Your task to perform on an android device: set an alarm Image 0: 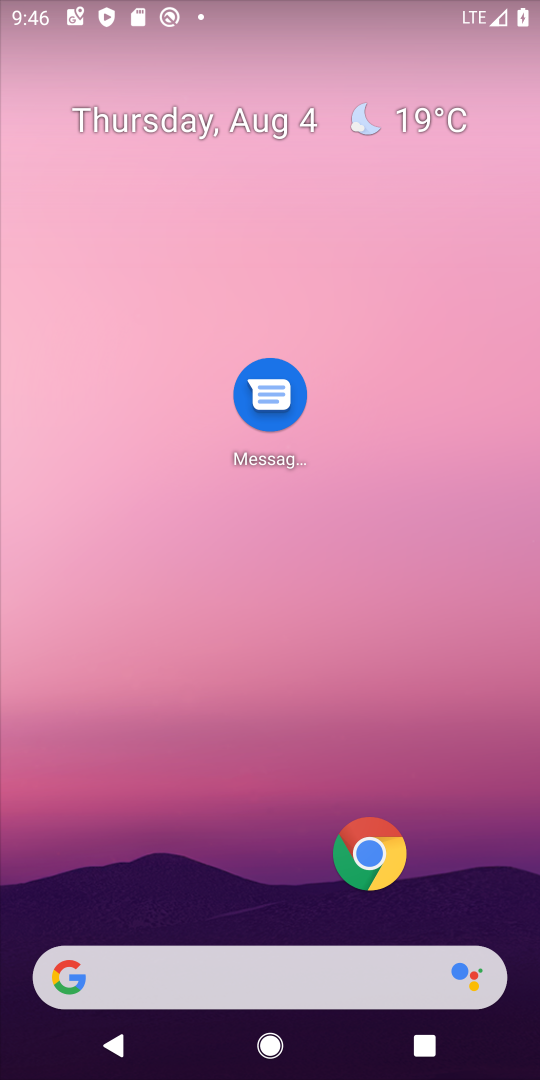
Step 0: drag from (225, 938) to (225, 362)
Your task to perform on an android device: set an alarm Image 1: 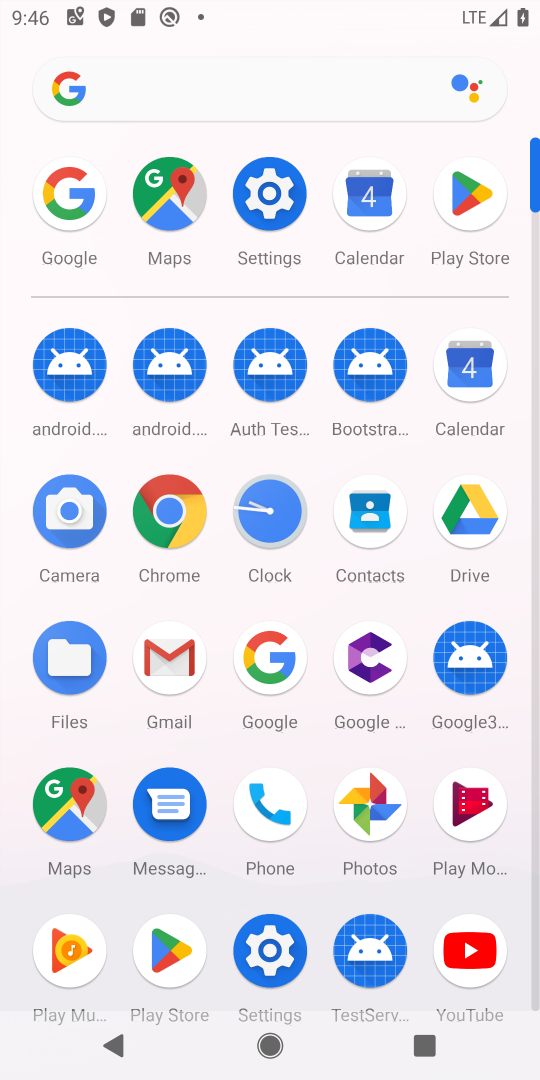
Step 1: click (261, 521)
Your task to perform on an android device: set an alarm Image 2: 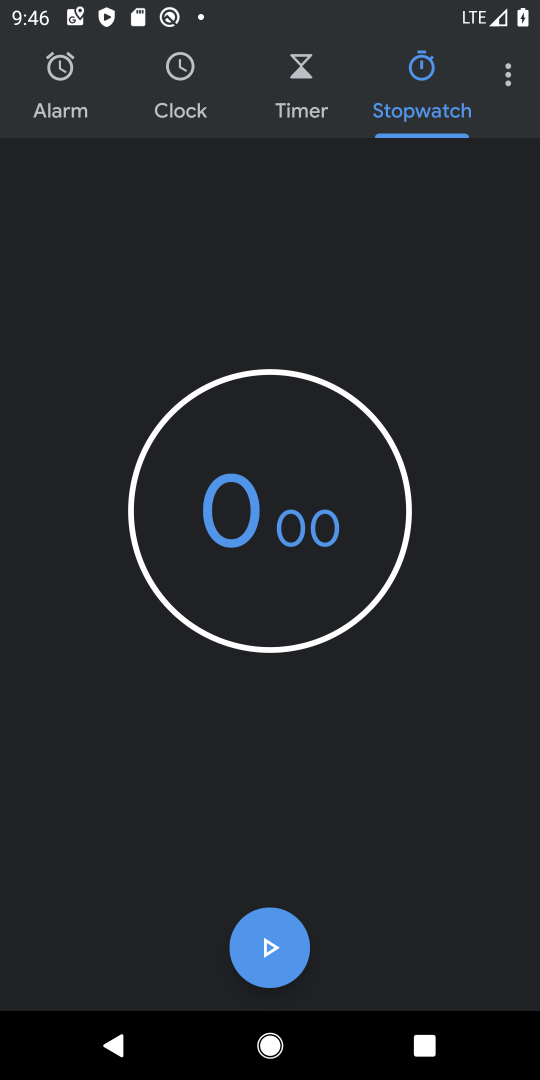
Step 2: click (114, 101)
Your task to perform on an android device: set an alarm Image 3: 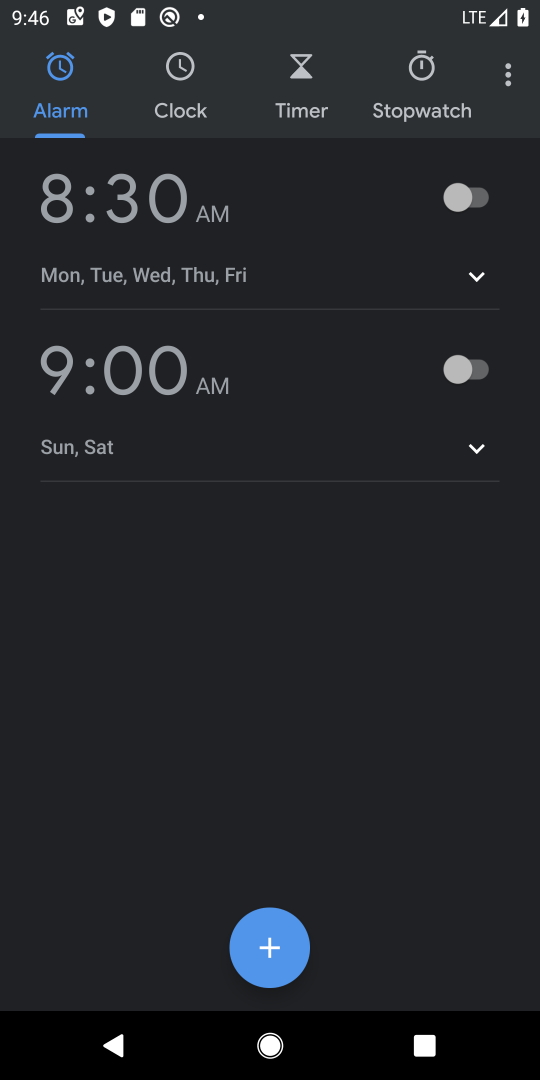
Step 3: click (282, 957)
Your task to perform on an android device: set an alarm Image 4: 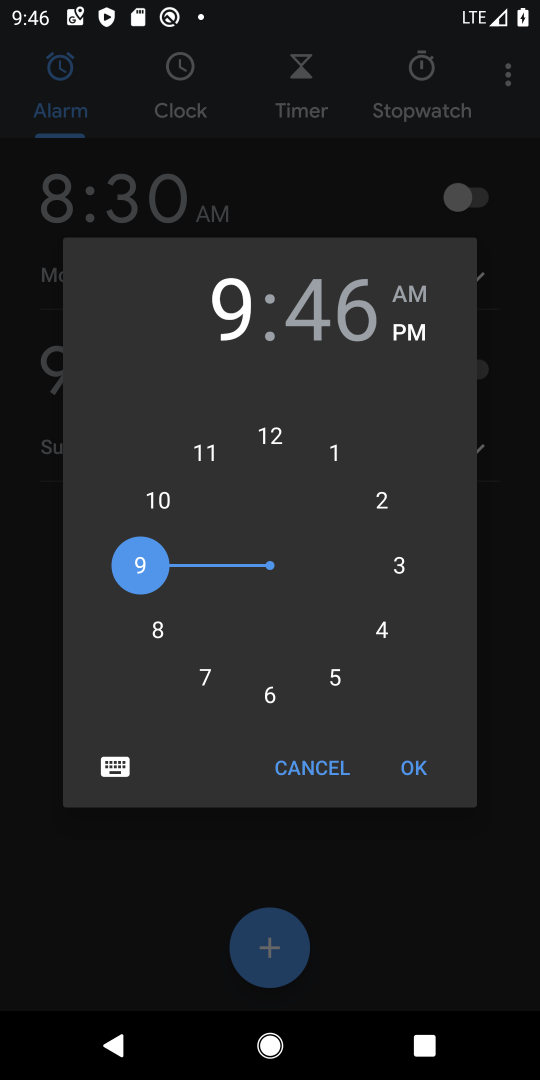
Step 4: click (202, 447)
Your task to perform on an android device: set an alarm Image 5: 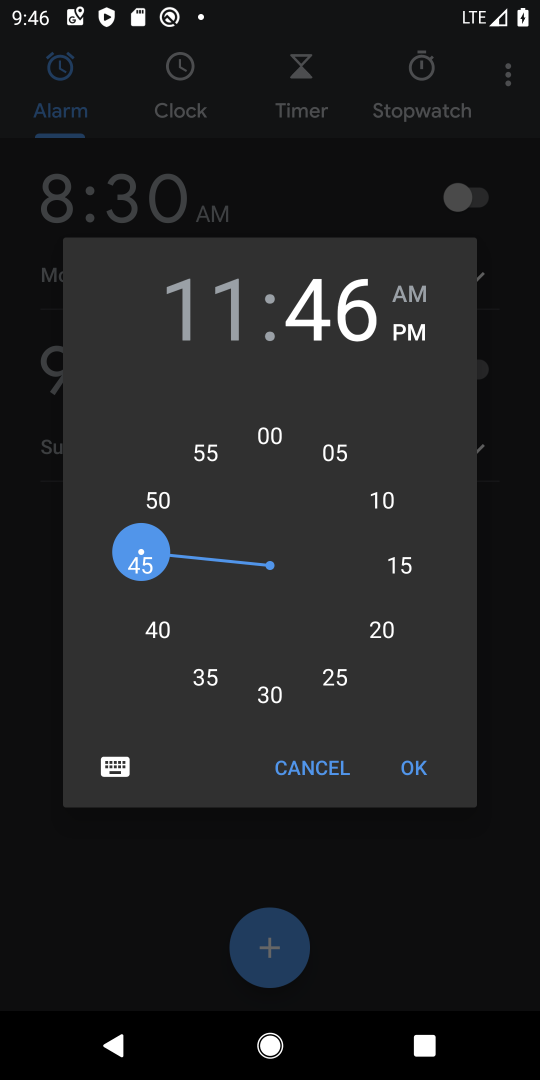
Step 5: click (265, 440)
Your task to perform on an android device: set an alarm Image 6: 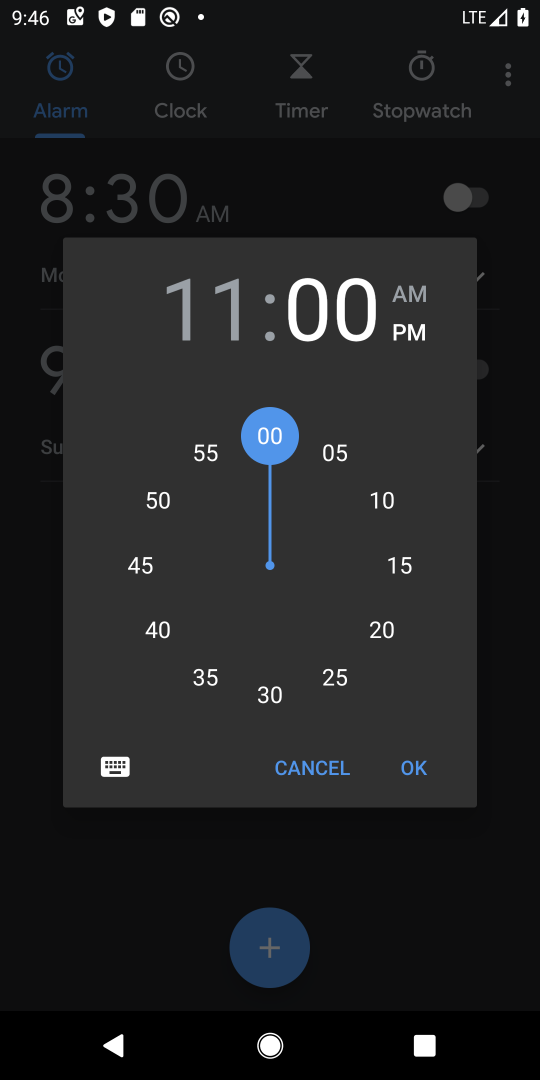
Step 6: click (413, 773)
Your task to perform on an android device: set an alarm Image 7: 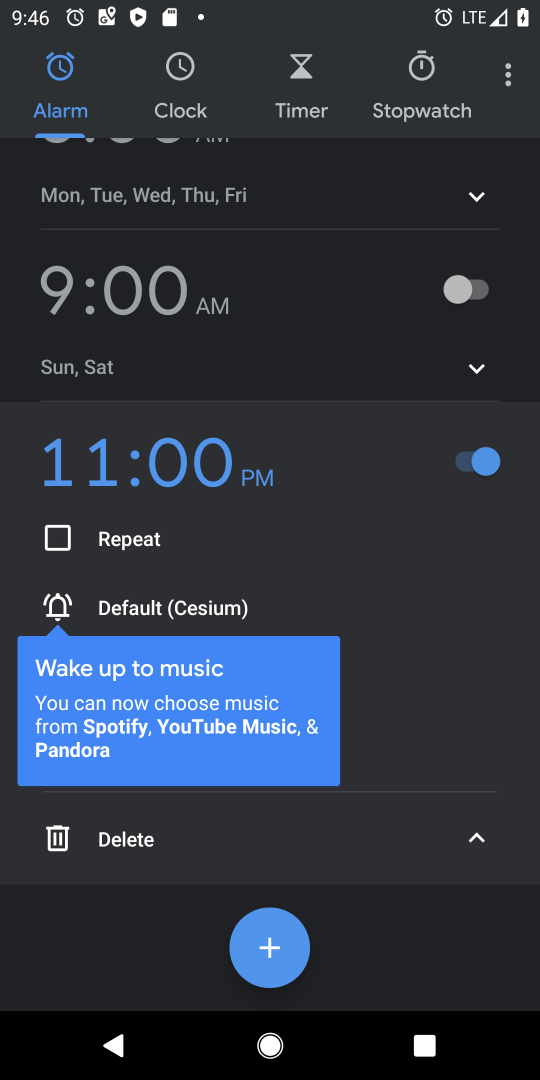
Step 7: task complete